Your task to perform on an android device: Open the Play Movies app and select the watchlist tab. Image 0: 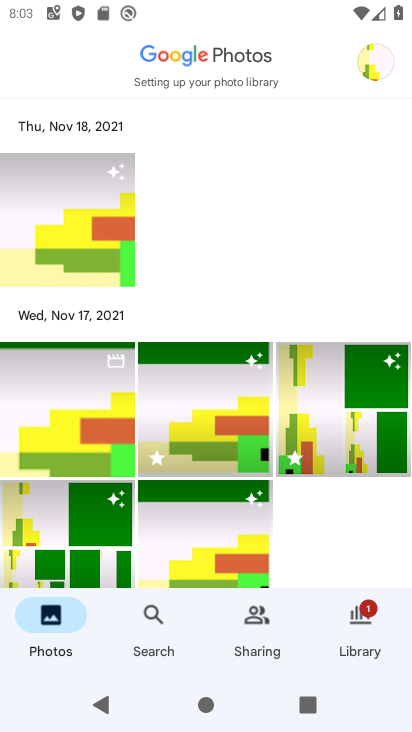
Step 0: press home button
Your task to perform on an android device: Open the Play Movies app and select the watchlist tab. Image 1: 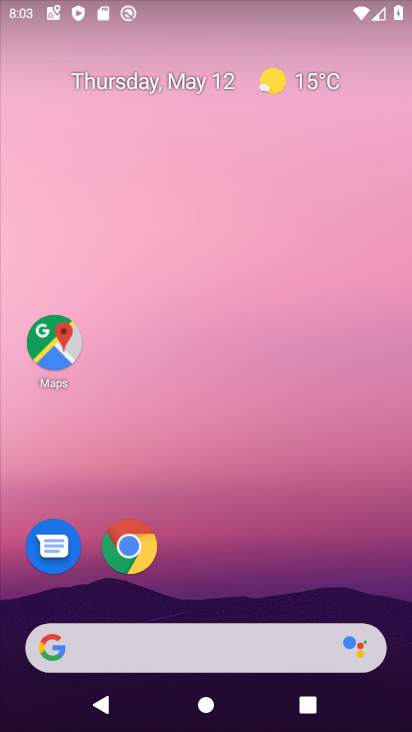
Step 1: drag from (181, 636) to (333, 174)
Your task to perform on an android device: Open the Play Movies app and select the watchlist tab. Image 2: 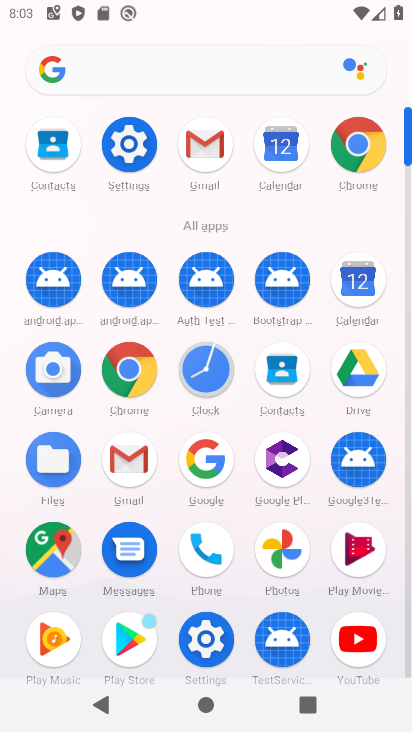
Step 2: click (347, 560)
Your task to perform on an android device: Open the Play Movies app and select the watchlist tab. Image 3: 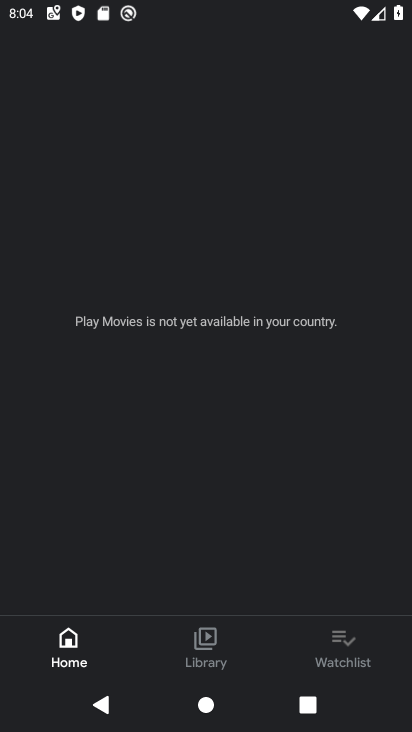
Step 3: click (353, 650)
Your task to perform on an android device: Open the Play Movies app and select the watchlist tab. Image 4: 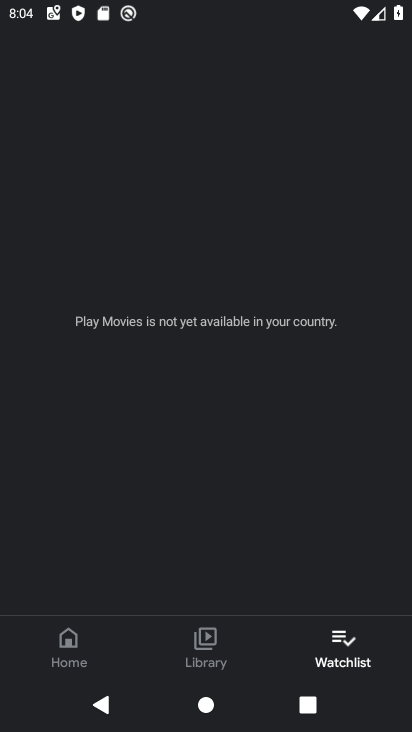
Step 4: task complete